Your task to perform on an android device: What's on my calendar today? Image 0: 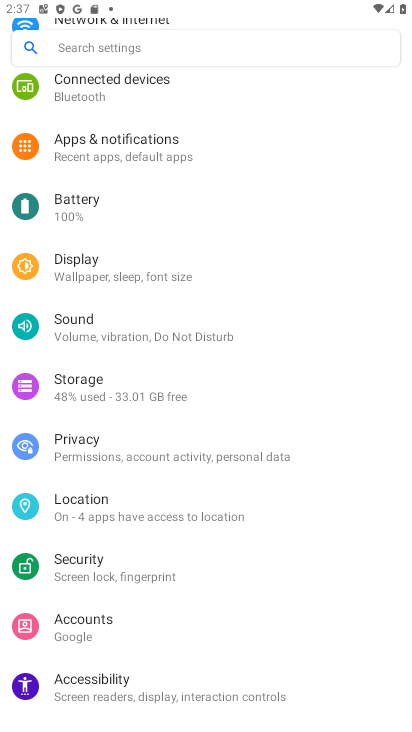
Step 0: press home button
Your task to perform on an android device: What's on my calendar today? Image 1: 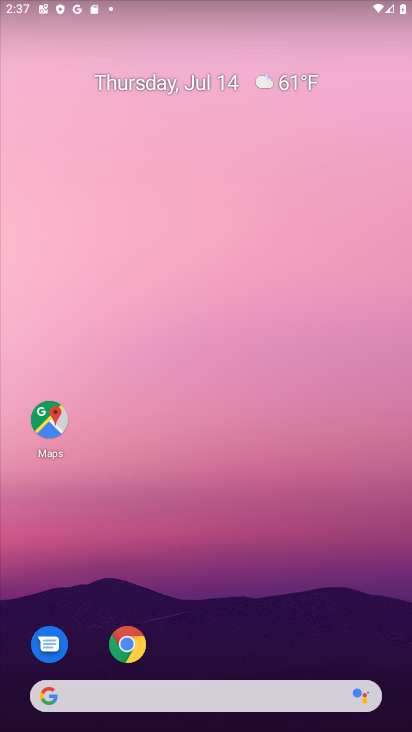
Step 1: drag from (297, 426) to (281, 14)
Your task to perform on an android device: What's on my calendar today? Image 2: 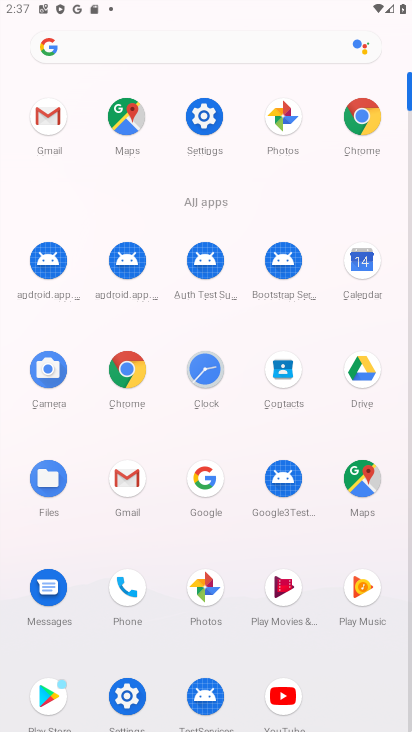
Step 2: click (356, 266)
Your task to perform on an android device: What's on my calendar today? Image 3: 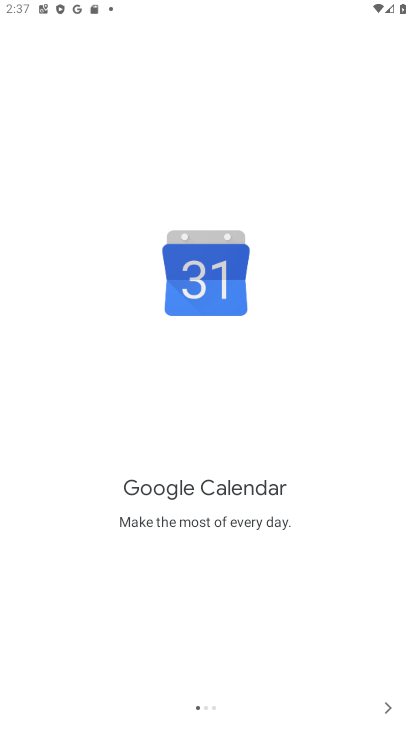
Step 3: click (392, 698)
Your task to perform on an android device: What's on my calendar today? Image 4: 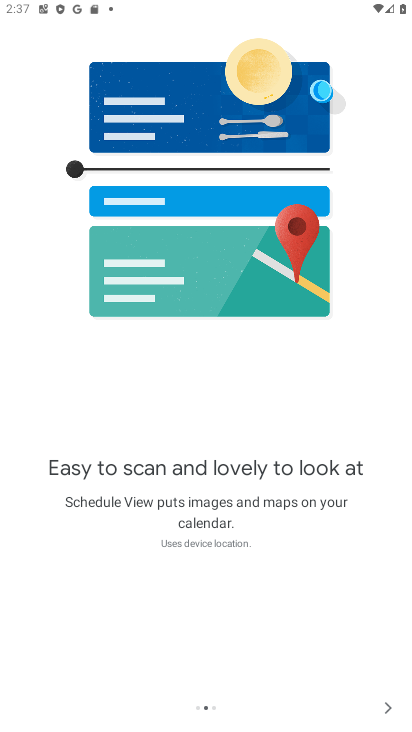
Step 4: click (400, 703)
Your task to perform on an android device: What's on my calendar today? Image 5: 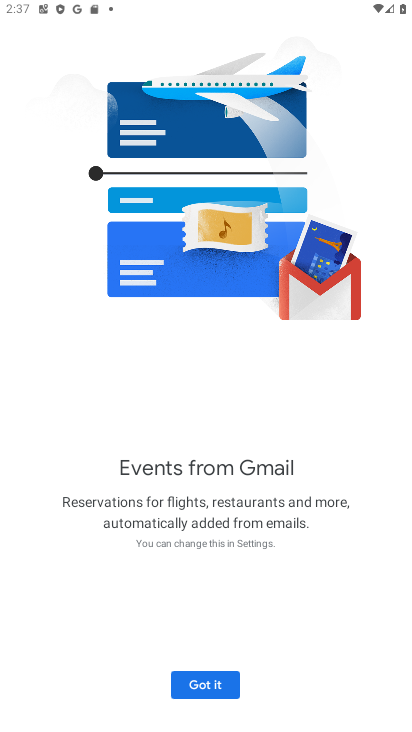
Step 5: click (188, 680)
Your task to perform on an android device: What's on my calendar today? Image 6: 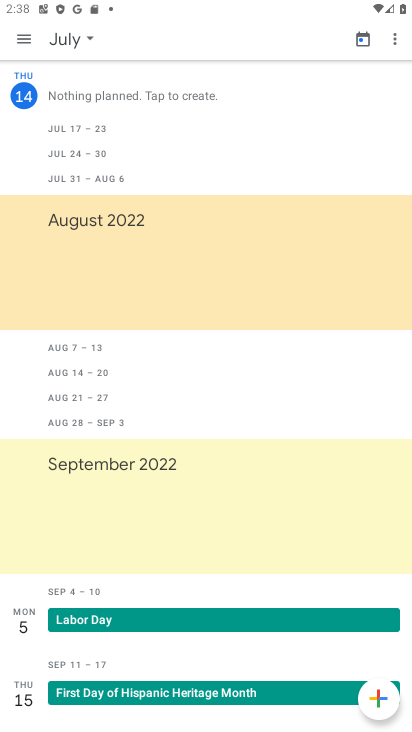
Step 6: task complete